Your task to perform on an android device: Go to accessibility settings Image 0: 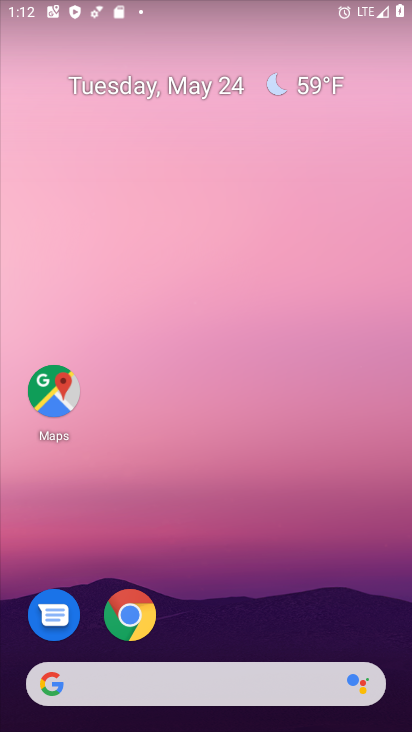
Step 0: drag from (259, 588) to (266, 85)
Your task to perform on an android device: Go to accessibility settings Image 1: 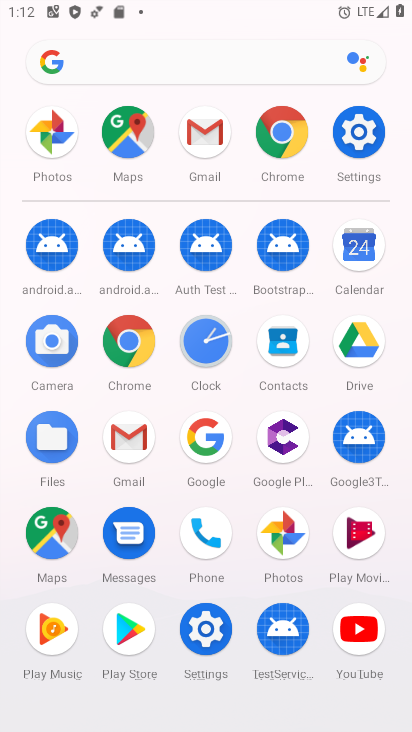
Step 1: drag from (14, 631) to (14, 210)
Your task to perform on an android device: Go to accessibility settings Image 2: 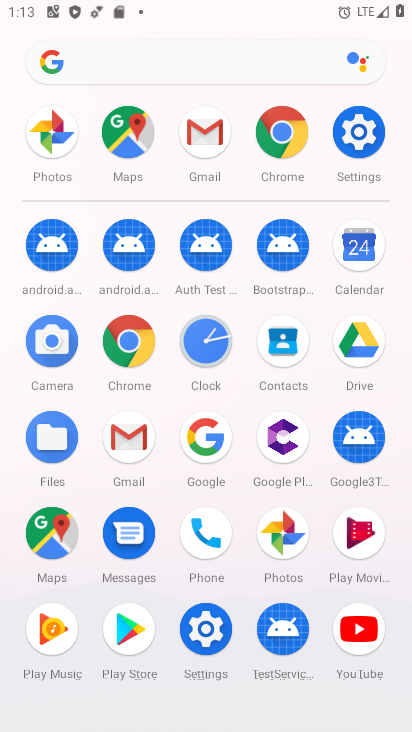
Step 2: drag from (14, 651) to (14, 329)
Your task to perform on an android device: Go to accessibility settings Image 3: 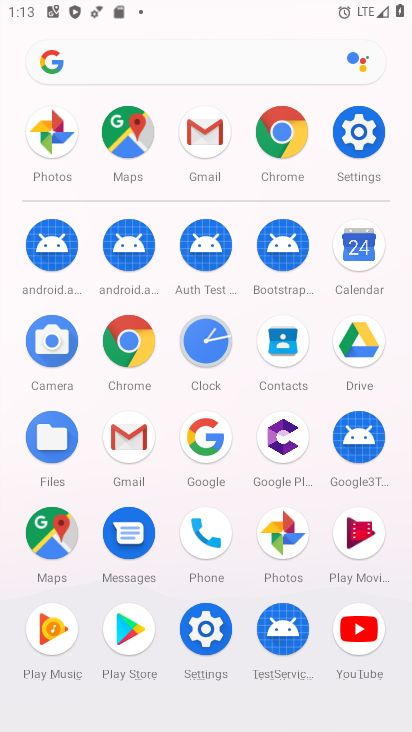
Step 3: click (203, 623)
Your task to perform on an android device: Go to accessibility settings Image 4: 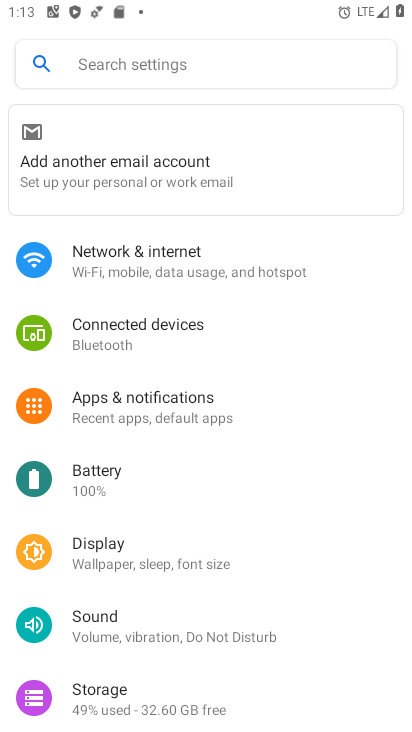
Step 4: drag from (243, 631) to (285, 136)
Your task to perform on an android device: Go to accessibility settings Image 5: 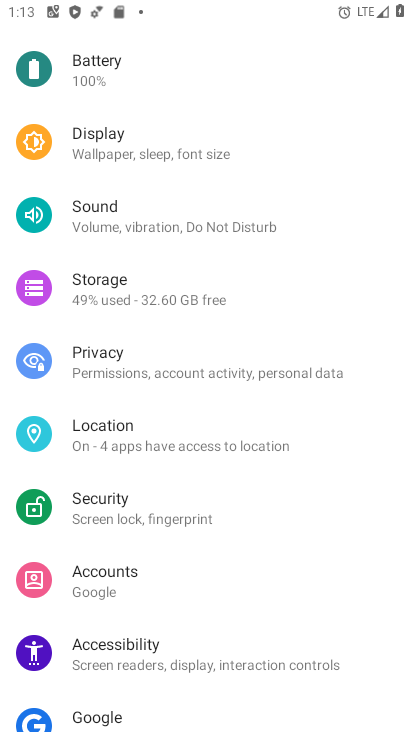
Step 5: click (151, 649)
Your task to perform on an android device: Go to accessibility settings Image 6: 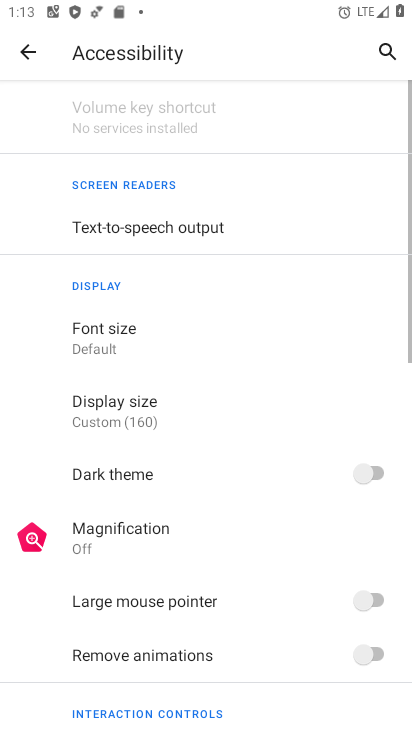
Step 6: task complete